Your task to perform on an android device: Go to Amazon Image 0: 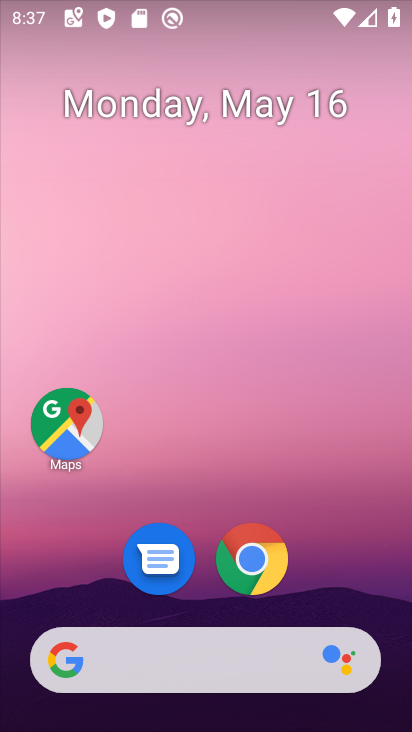
Step 0: click (250, 563)
Your task to perform on an android device: Go to Amazon Image 1: 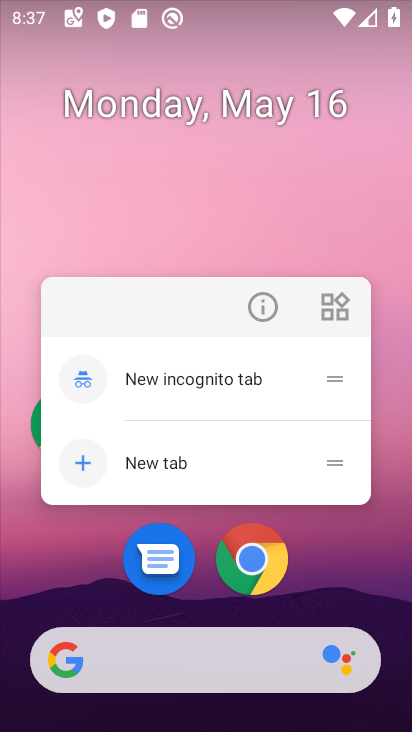
Step 1: click (250, 563)
Your task to perform on an android device: Go to Amazon Image 2: 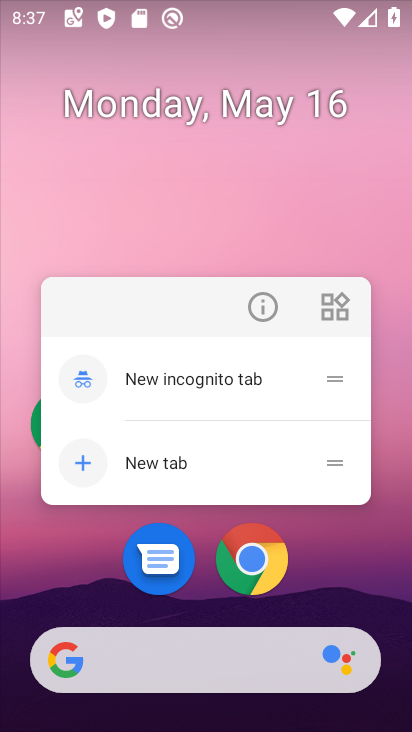
Step 2: click (248, 557)
Your task to perform on an android device: Go to Amazon Image 3: 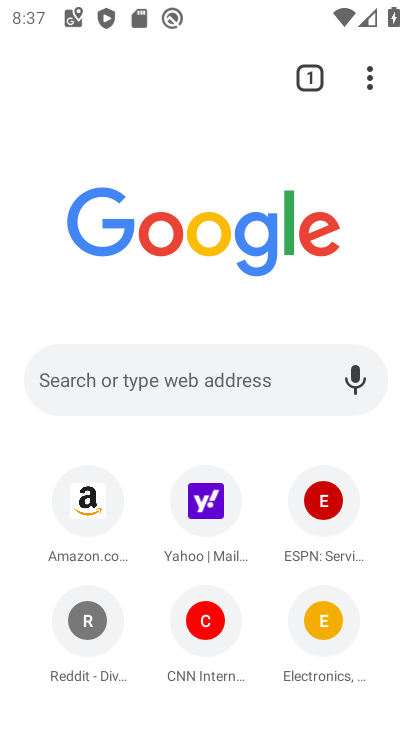
Step 3: click (182, 374)
Your task to perform on an android device: Go to Amazon Image 4: 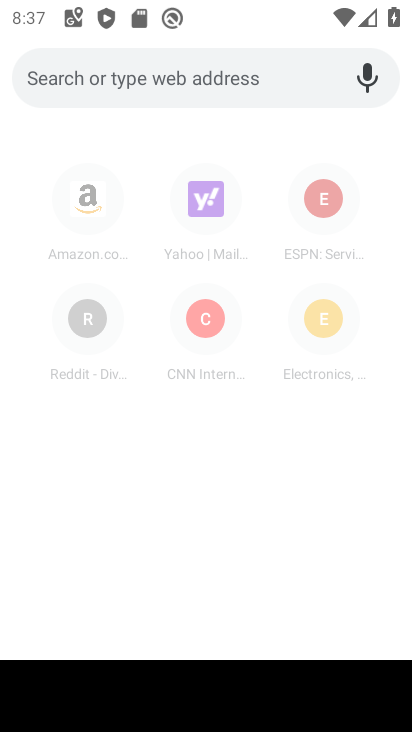
Step 4: type "amazon"
Your task to perform on an android device: Go to Amazon Image 5: 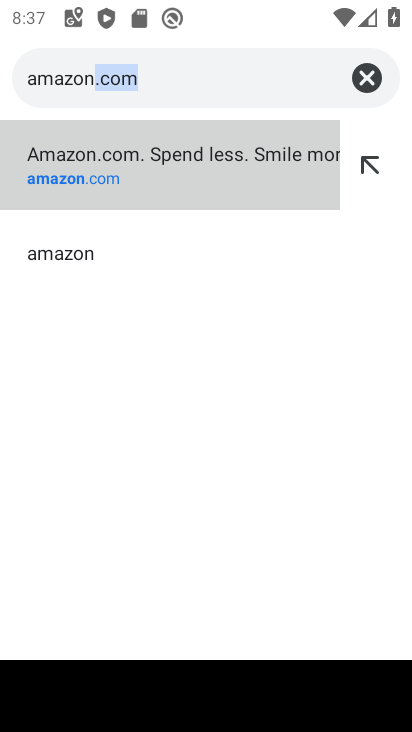
Step 5: click (99, 158)
Your task to perform on an android device: Go to Amazon Image 6: 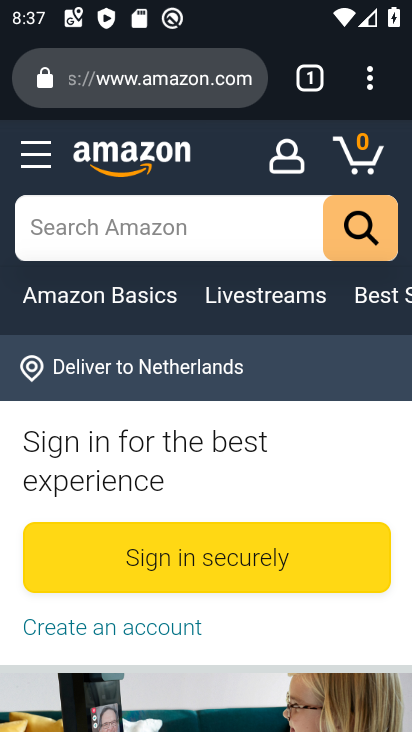
Step 6: task complete